Your task to perform on an android device: turn off sleep mode Image 0: 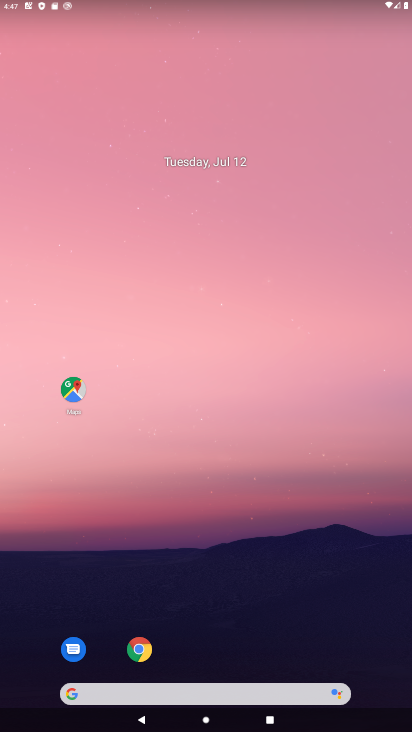
Step 0: drag from (231, 697) to (251, 244)
Your task to perform on an android device: turn off sleep mode Image 1: 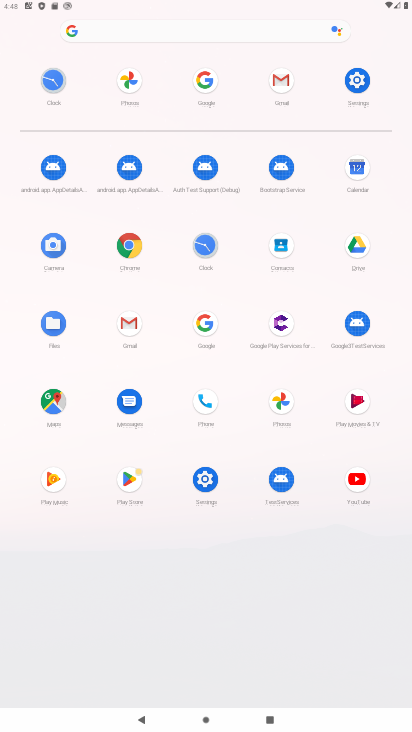
Step 1: click (356, 80)
Your task to perform on an android device: turn off sleep mode Image 2: 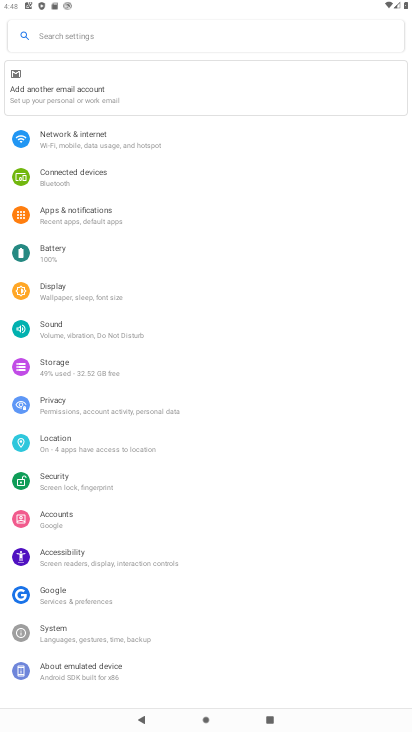
Step 2: click (60, 293)
Your task to perform on an android device: turn off sleep mode Image 3: 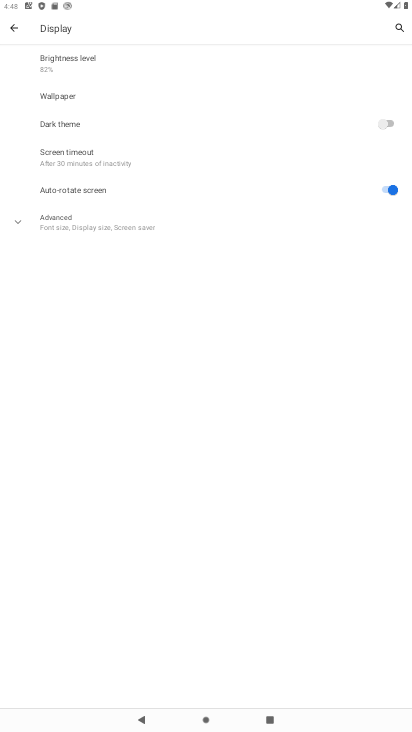
Step 3: click (94, 155)
Your task to perform on an android device: turn off sleep mode Image 4: 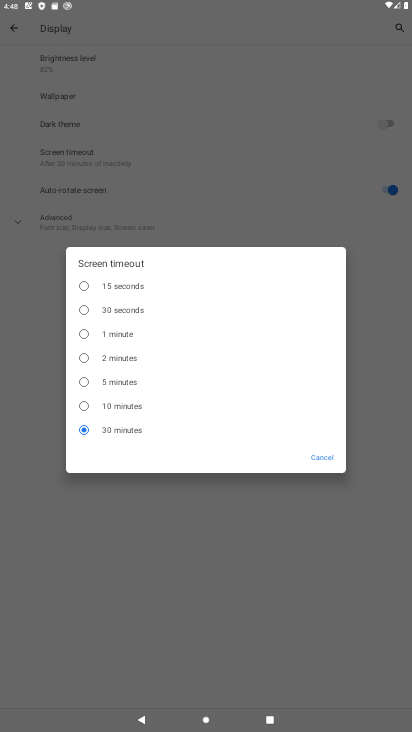
Step 4: click (325, 456)
Your task to perform on an android device: turn off sleep mode Image 5: 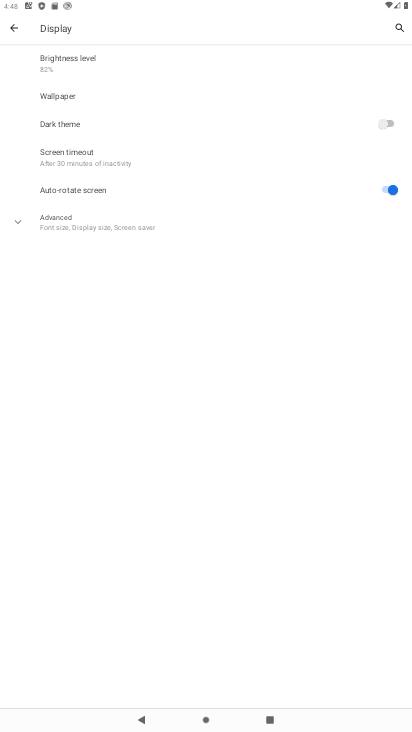
Step 5: click (71, 226)
Your task to perform on an android device: turn off sleep mode Image 6: 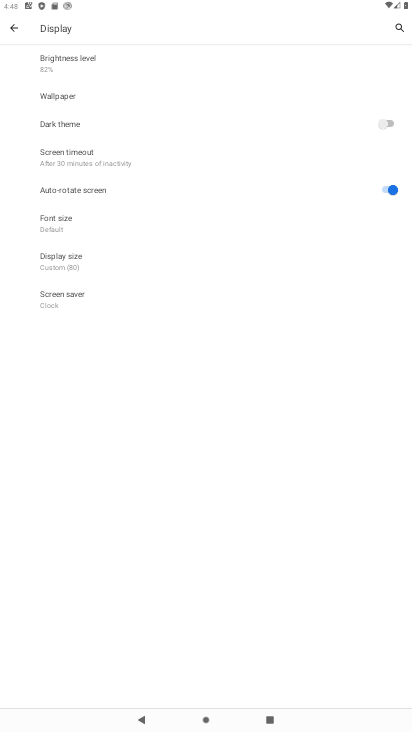
Step 6: task complete